Your task to perform on an android device: Open the web browser Image 0: 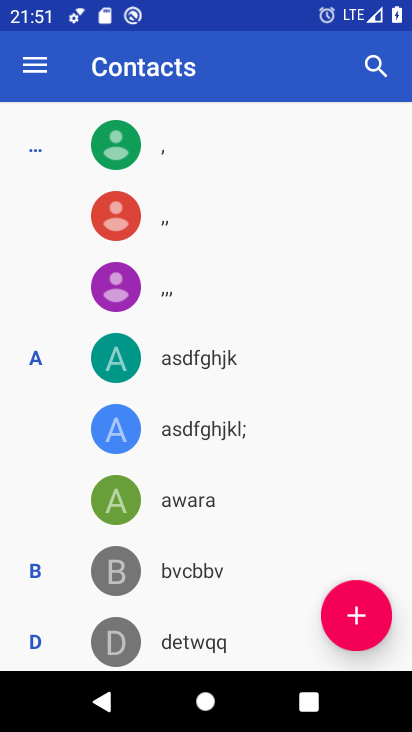
Step 0: press home button
Your task to perform on an android device: Open the web browser Image 1: 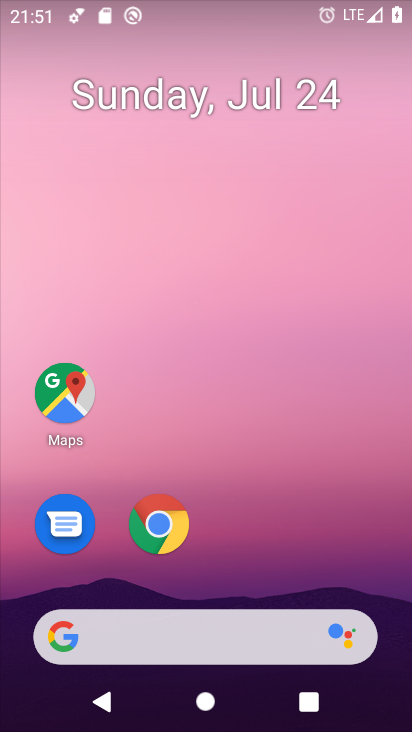
Step 1: click (192, 642)
Your task to perform on an android device: Open the web browser Image 2: 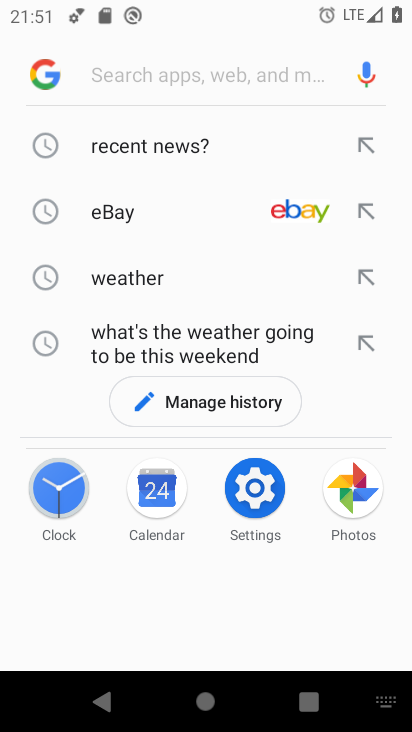
Step 2: task complete